Your task to perform on an android device: change alarm snooze length Image 0: 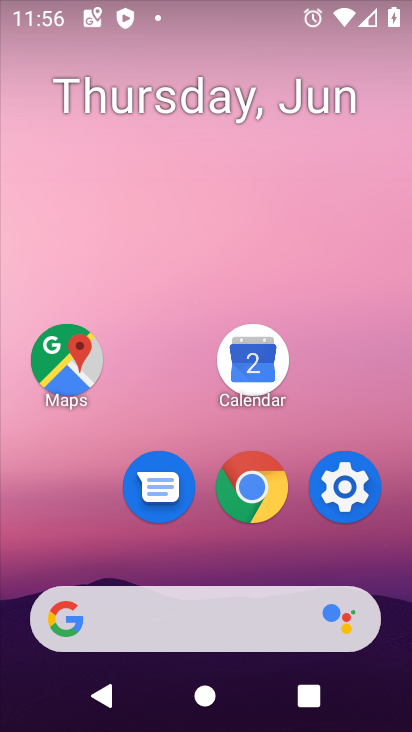
Step 0: drag from (169, 644) to (306, 73)
Your task to perform on an android device: change alarm snooze length Image 1: 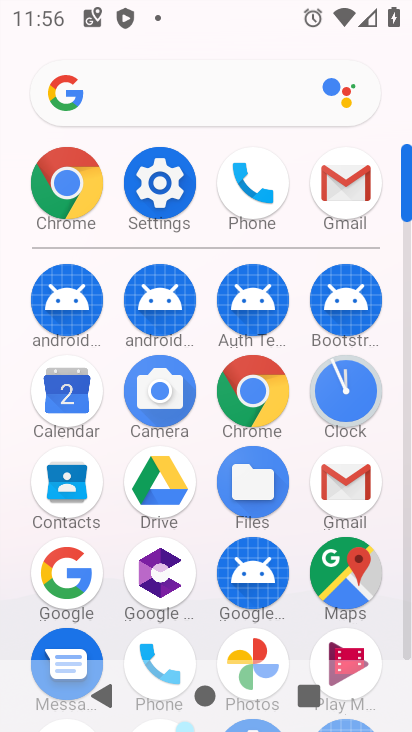
Step 1: click (345, 389)
Your task to perform on an android device: change alarm snooze length Image 2: 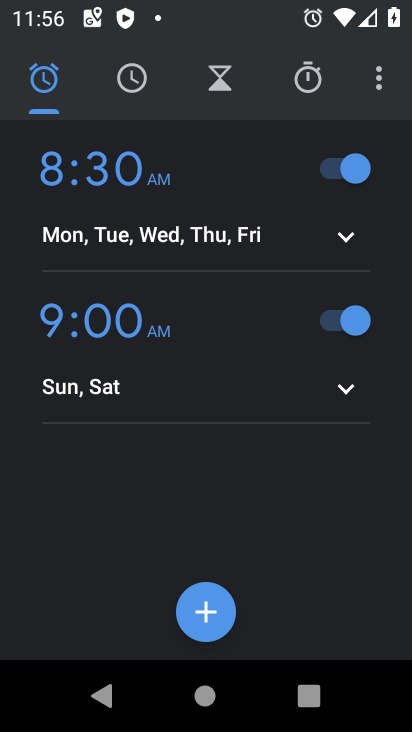
Step 2: click (365, 97)
Your task to perform on an android device: change alarm snooze length Image 3: 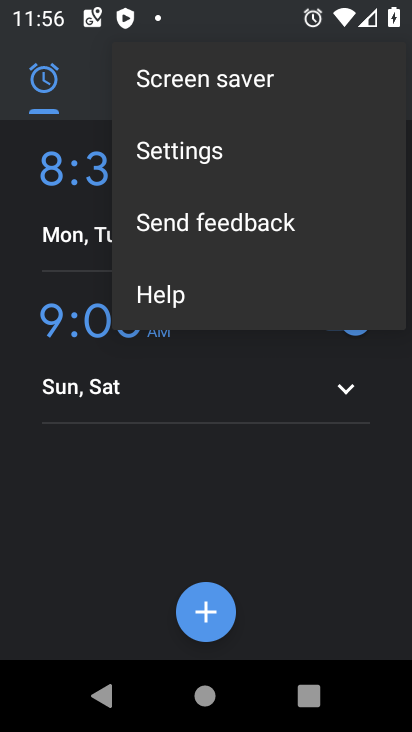
Step 3: click (210, 161)
Your task to perform on an android device: change alarm snooze length Image 4: 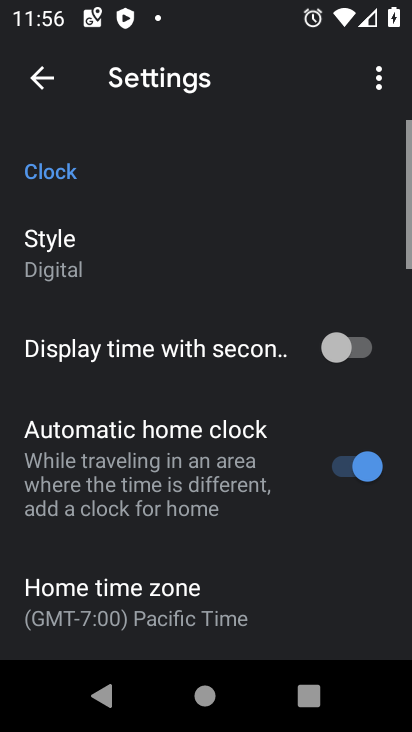
Step 4: click (227, 136)
Your task to perform on an android device: change alarm snooze length Image 5: 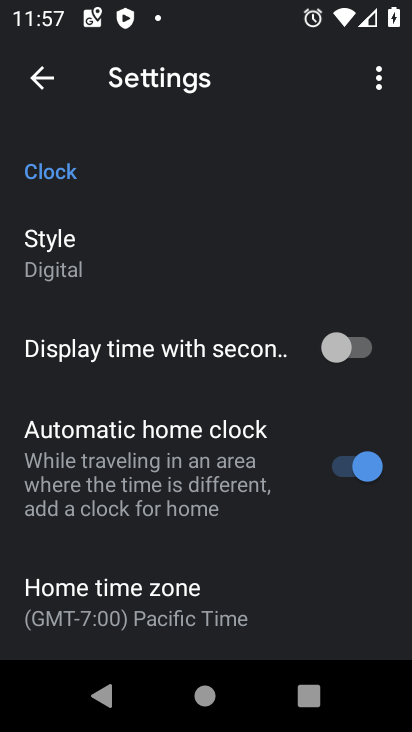
Step 5: drag from (184, 559) to (234, 228)
Your task to perform on an android device: change alarm snooze length Image 6: 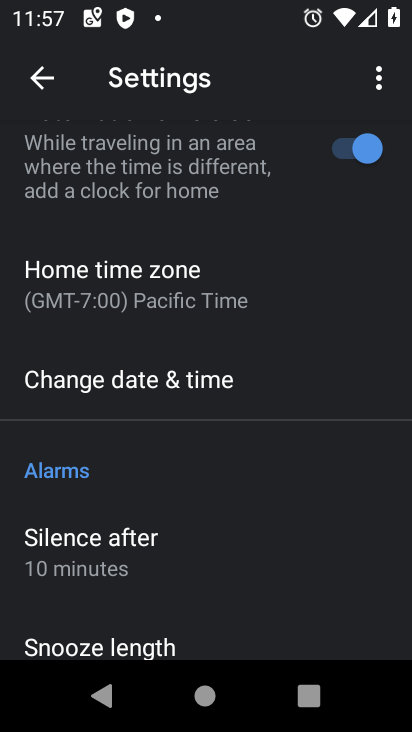
Step 6: click (135, 643)
Your task to perform on an android device: change alarm snooze length Image 7: 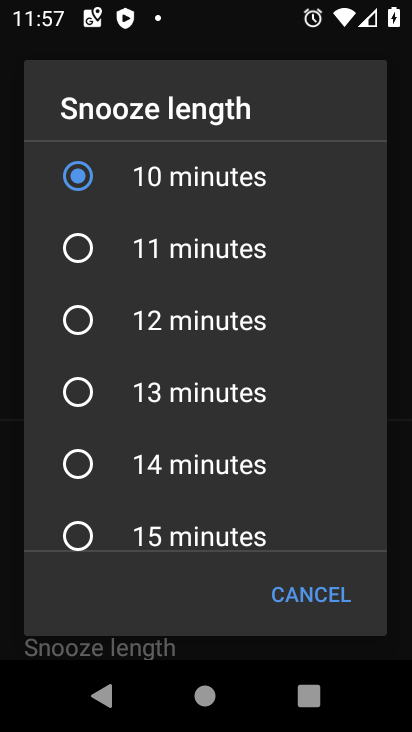
Step 7: click (186, 337)
Your task to perform on an android device: change alarm snooze length Image 8: 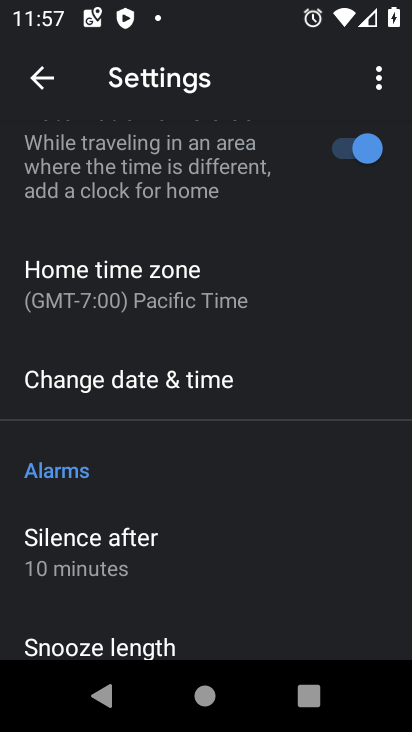
Step 8: task complete